Your task to perform on an android device: clear history in the chrome app Image 0: 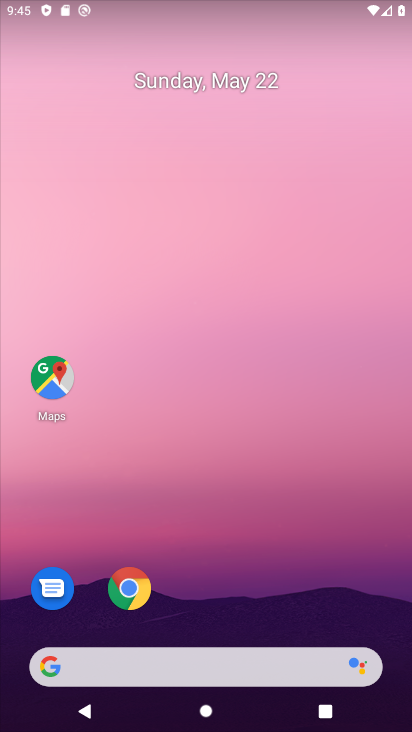
Step 0: click (143, 603)
Your task to perform on an android device: clear history in the chrome app Image 1: 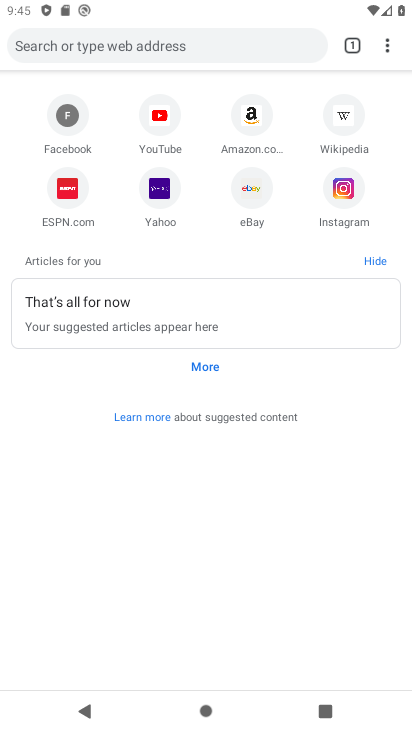
Step 1: click (391, 48)
Your task to perform on an android device: clear history in the chrome app Image 2: 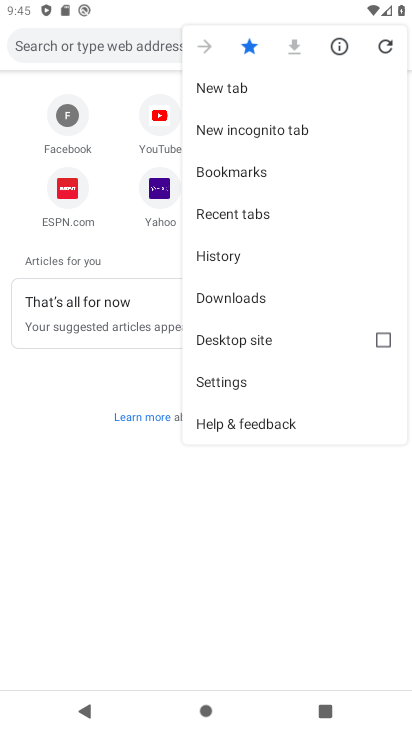
Step 2: click (268, 260)
Your task to perform on an android device: clear history in the chrome app Image 3: 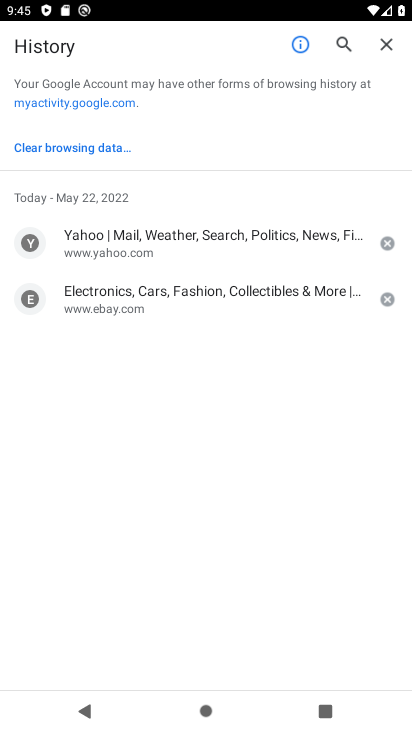
Step 3: click (107, 150)
Your task to perform on an android device: clear history in the chrome app Image 4: 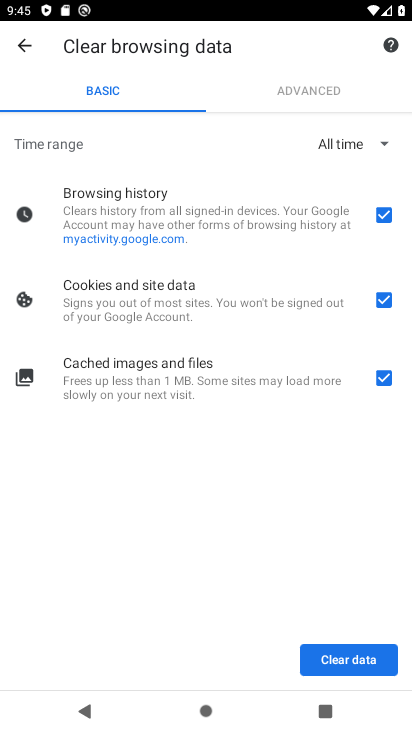
Step 4: click (387, 383)
Your task to perform on an android device: clear history in the chrome app Image 5: 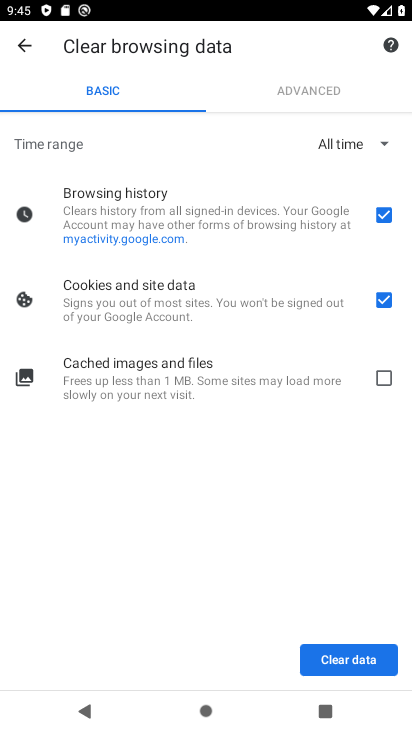
Step 5: click (380, 302)
Your task to perform on an android device: clear history in the chrome app Image 6: 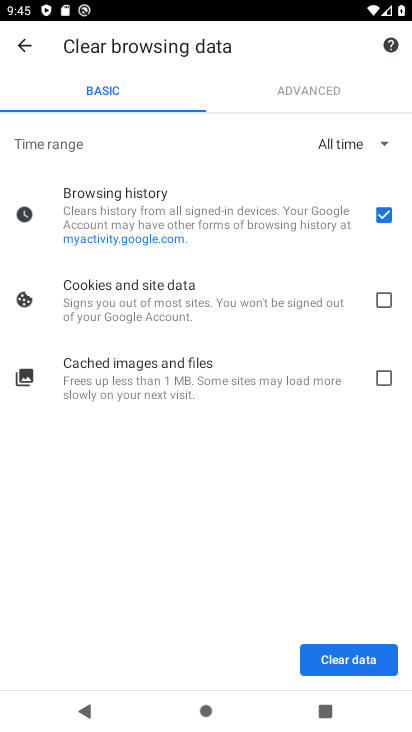
Step 6: click (344, 660)
Your task to perform on an android device: clear history in the chrome app Image 7: 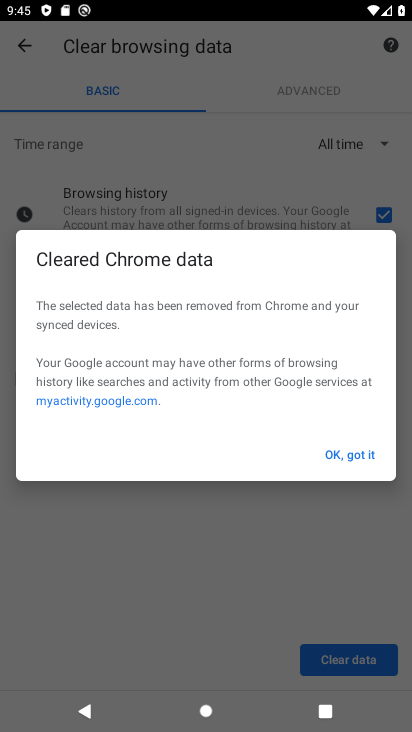
Step 7: click (369, 461)
Your task to perform on an android device: clear history in the chrome app Image 8: 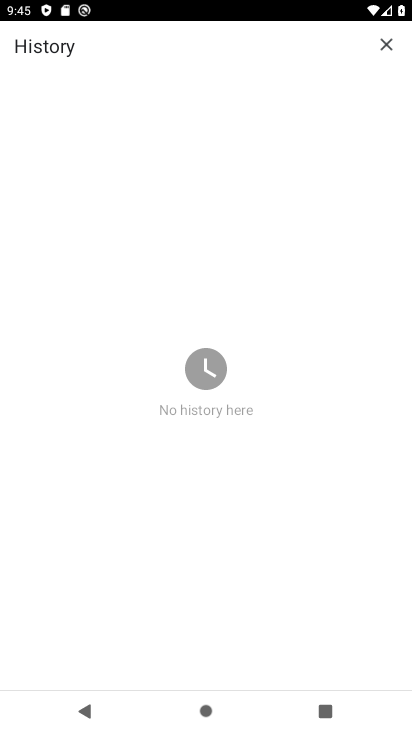
Step 8: task complete